Your task to perform on an android device: Open Google Chrome and click the shortcut for Amazon.com Image 0: 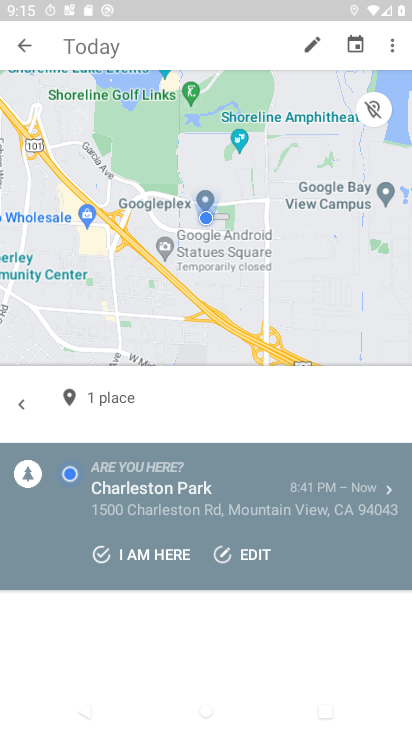
Step 0: press home button
Your task to perform on an android device: Open Google Chrome and click the shortcut for Amazon.com Image 1: 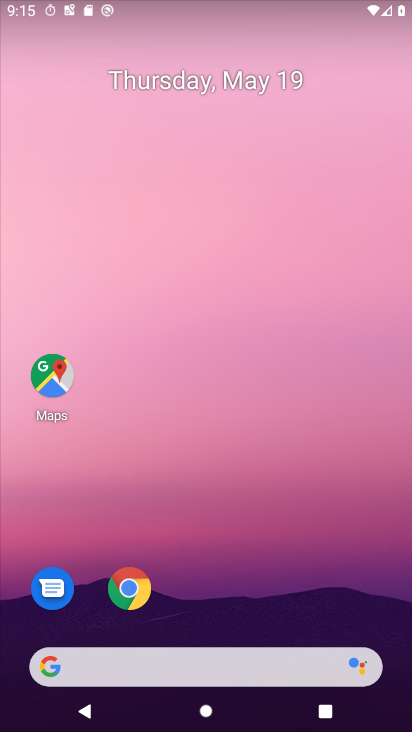
Step 1: click (132, 603)
Your task to perform on an android device: Open Google Chrome and click the shortcut for Amazon.com Image 2: 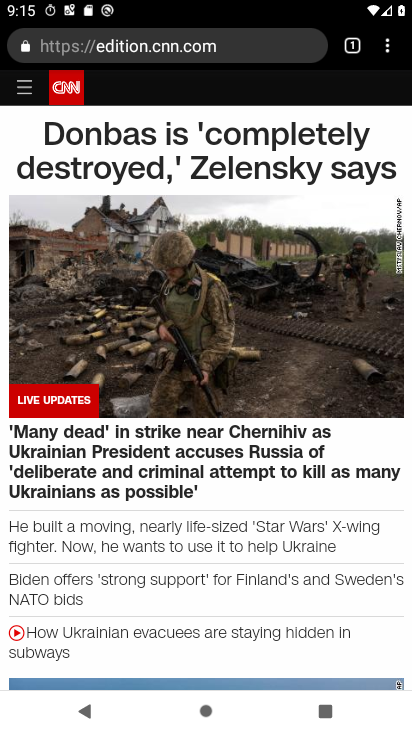
Step 2: drag from (386, 54) to (308, 94)
Your task to perform on an android device: Open Google Chrome and click the shortcut for Amazon.com Image 3: 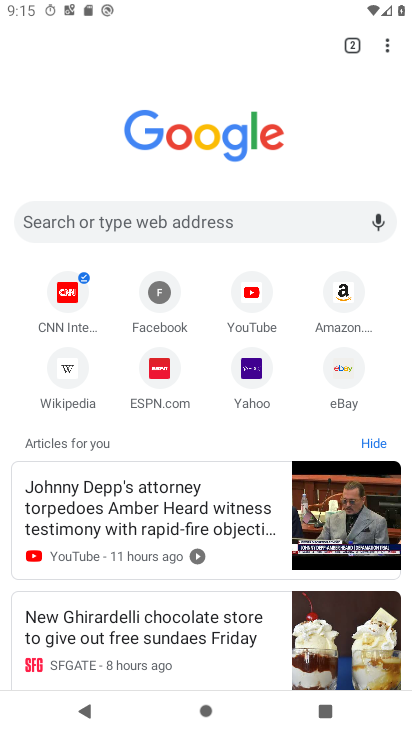
Step 3: click (348, 292)
Your task to perform on an android device: Open Google Chrome and click the shortcut for Amazon.com Image 4: 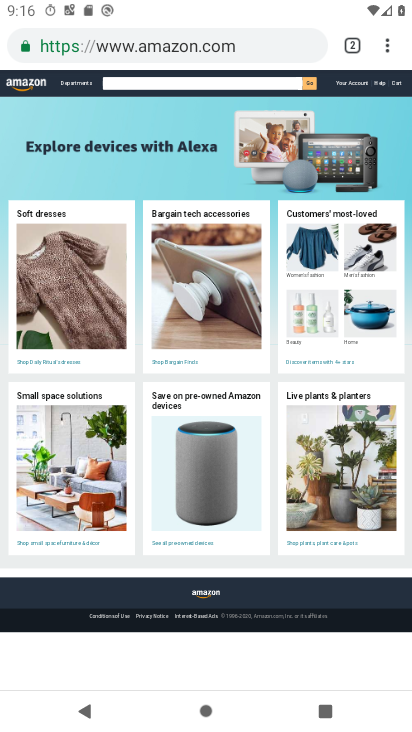
Step 4: task complete